Your task to perform on an android device: When is my next appointment? Image 0: 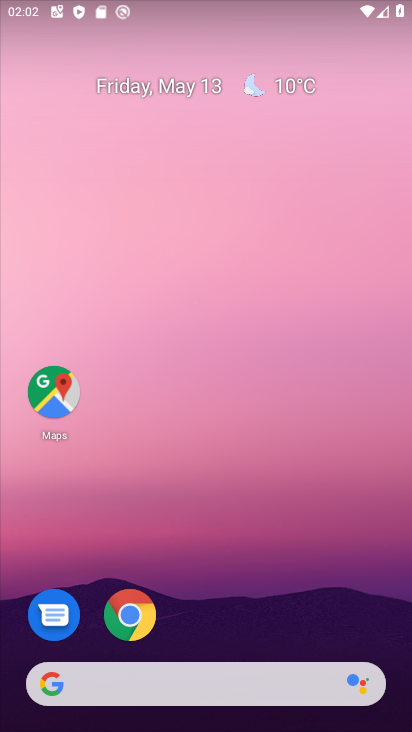
Step 0: drag from (219, 630) to (136, 270)
Your task to perform on an android device: When is my next appointment? Image 1: 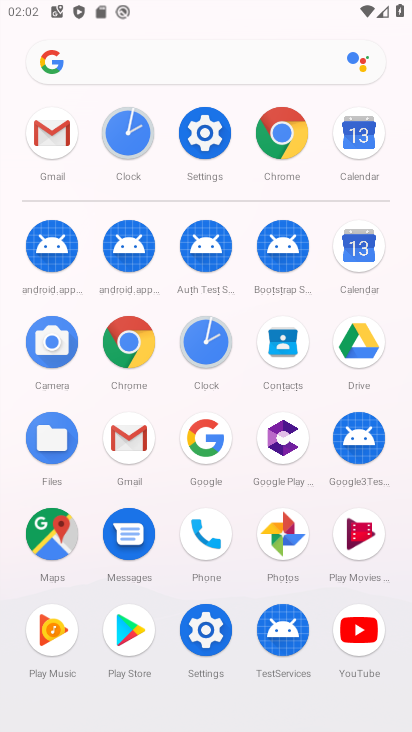
Step 1: click (359, 138)
Your task to perform on an android device: When is my next appointment? Image 2: 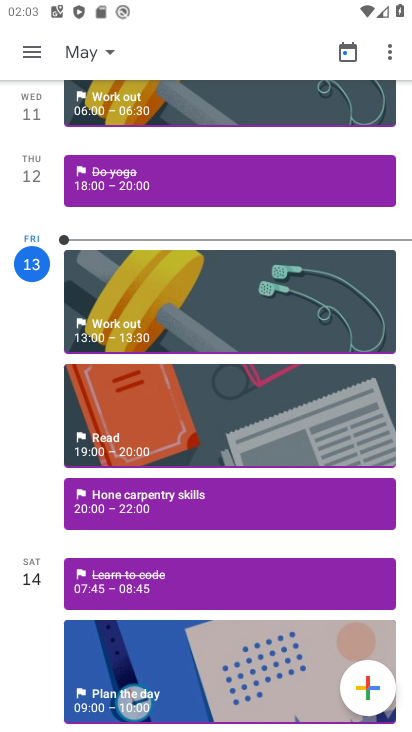
Step 2: task complete